Your task to perform on an android device: find photos in the google photos app Image 0: 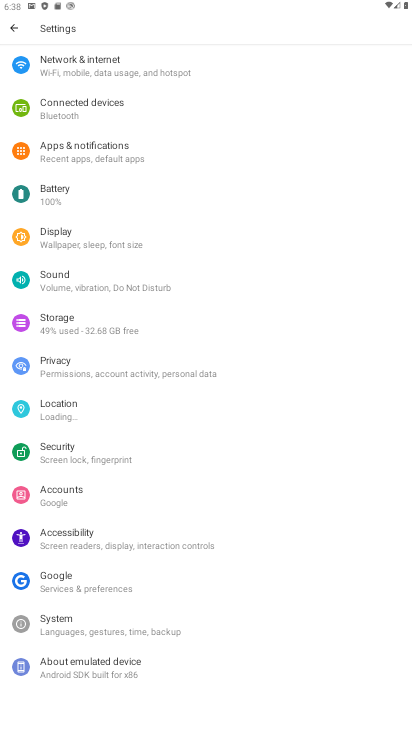
Step 0: press home button
Your task to perform on an android device: find photos in the google photos app Image 1: 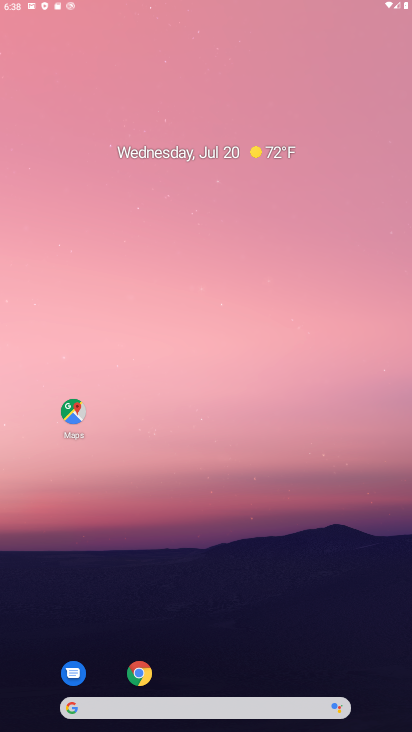
Step 1: drag from (324, 637) to (251, 13)
Your task to perform on an android device: find photos in the google photos app Image 2: 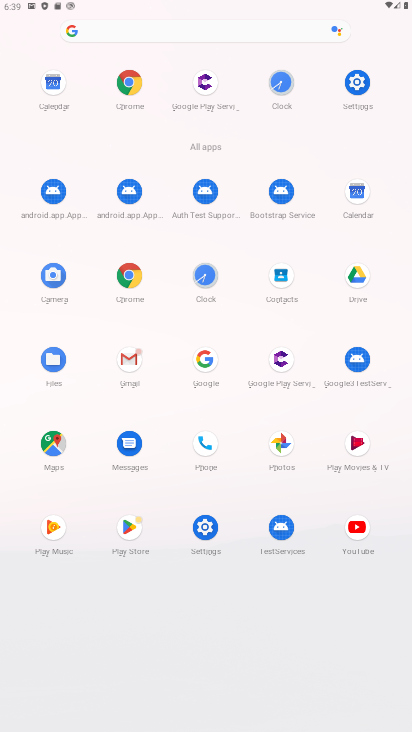
Step 2: click (289, 442)
Your task to perform on an android device: find photos in the google photos app Image 3: 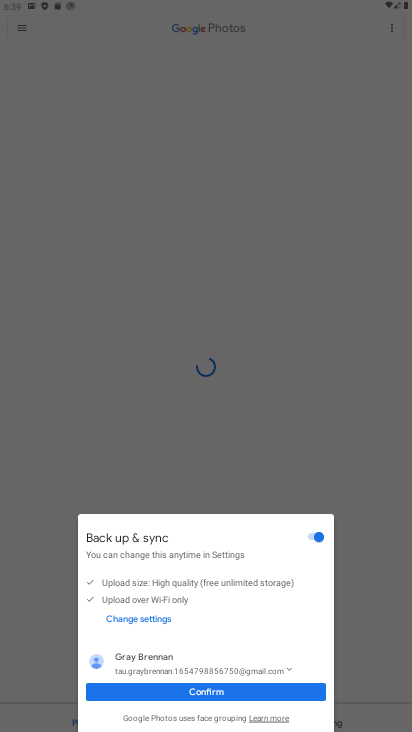
Step 3: click (188, 689)
Your task to perform on an android device: find photos in the google photos app Image 4: 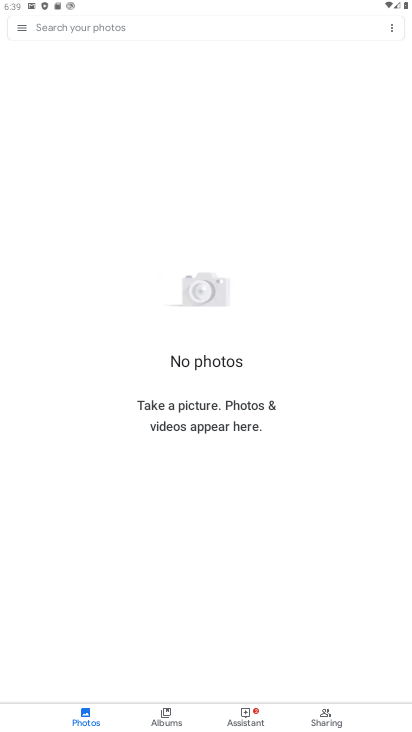
Step 4: click (21, 25)
Your task to perform on an android device: find photos in the google photos app Image 5: 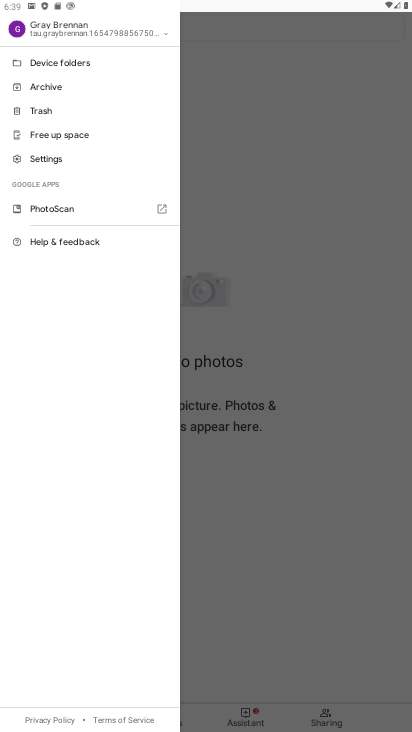
Step 5: task complete